Your task to perform on an android device: delete browsing data in the chrome app Image 0: 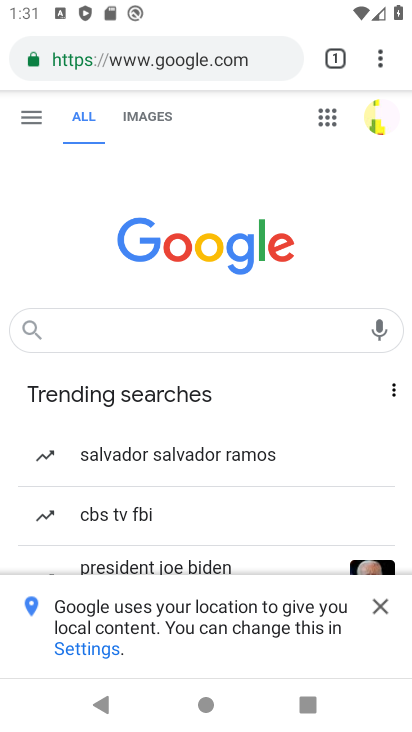
Step 0: click (383, 62)
Your task to perform on an android device: delete browsing data in the chrome app Image 1: 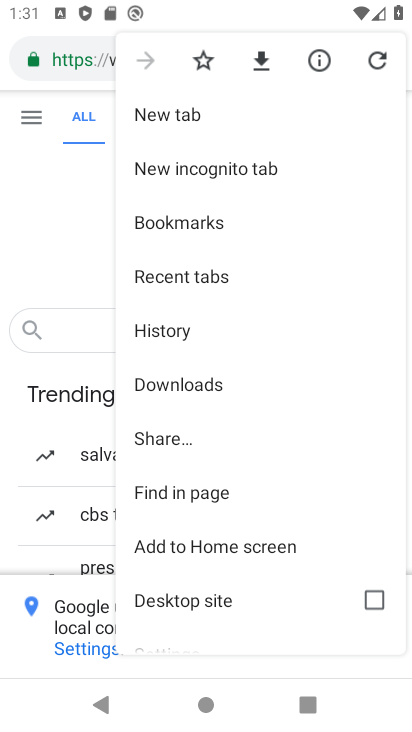
Step 1: drag from (272, 452) to (256, 106)
Your task to perform on an android device: delete browsing data in the chrome app Image 2: 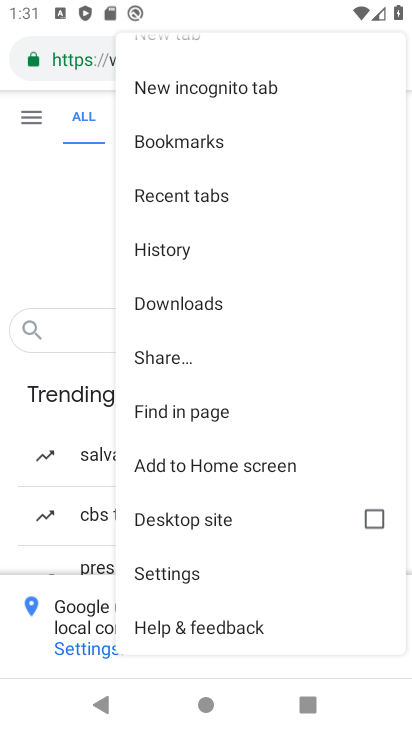
Step 2: click (257, 586)
Your task to perform on an android device: delete browsing data in the chrome app Image 3: 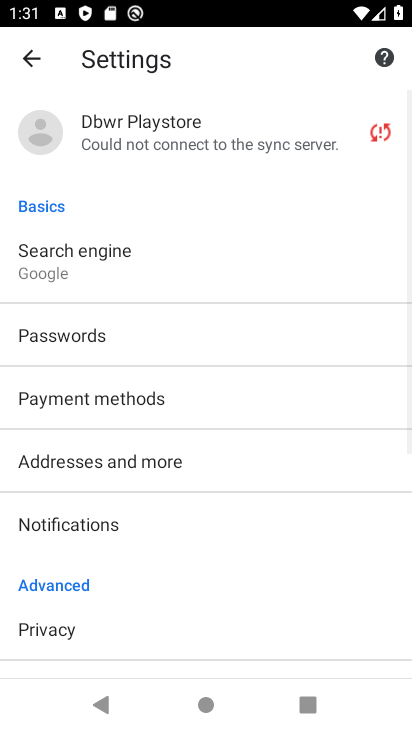
Step 3: drag from (257, 586) to (152, 200)
Your task to perform on an android device: delete browsing data in the chrome app Image 4: 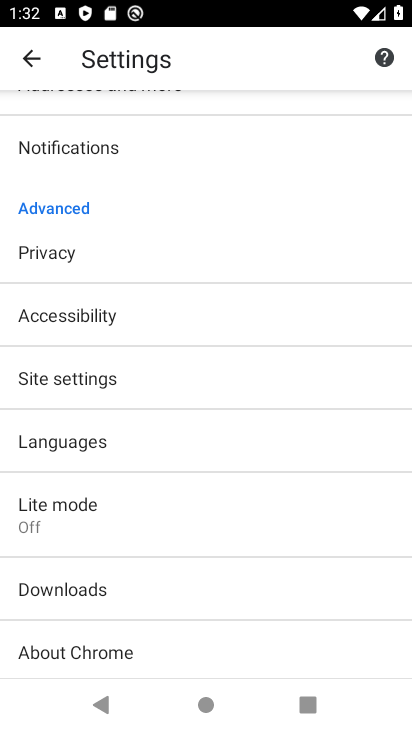
Step 4: drag from (138, 375) to (137, 489)
Your task to perform on an android device: delete browsing data in the chrome app Image 5: 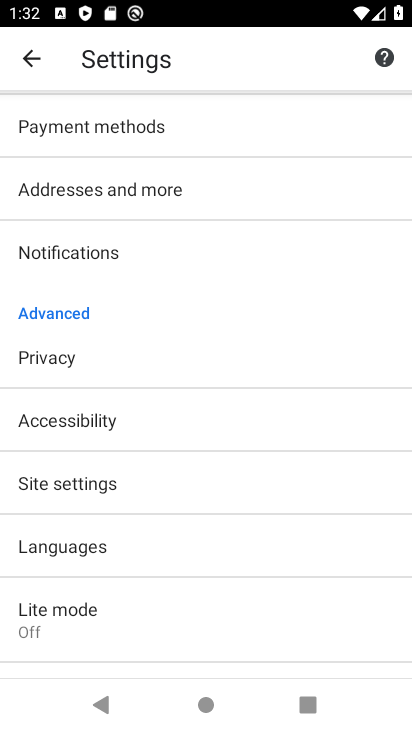
Step 5: press home button
Your task to perform on an android device: delete browsing data in the chrome app Image 6: 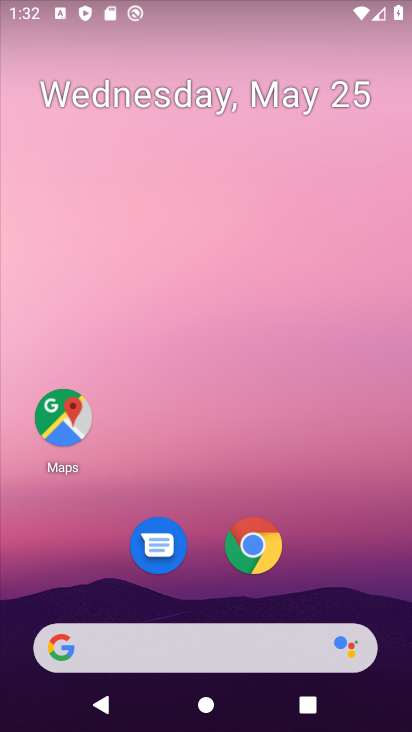
Step 6: click (278, 557)
Your task to perform on an android device: delete browsing data in the chrome app Image 7: 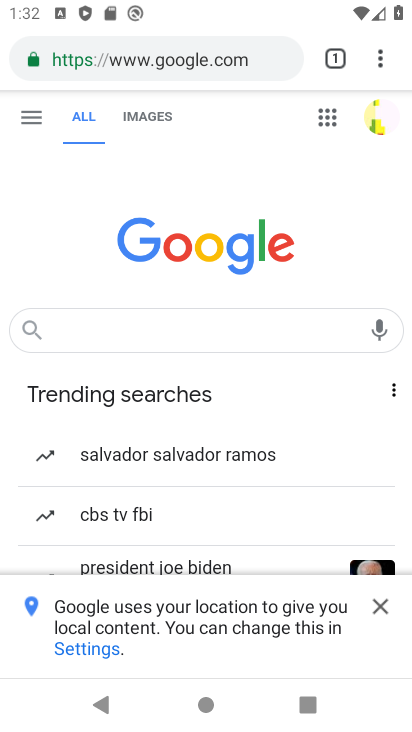
Step 7: click (379, 57)
Your task to perform on an android device: delete browsing data in the chrome app Image 8: 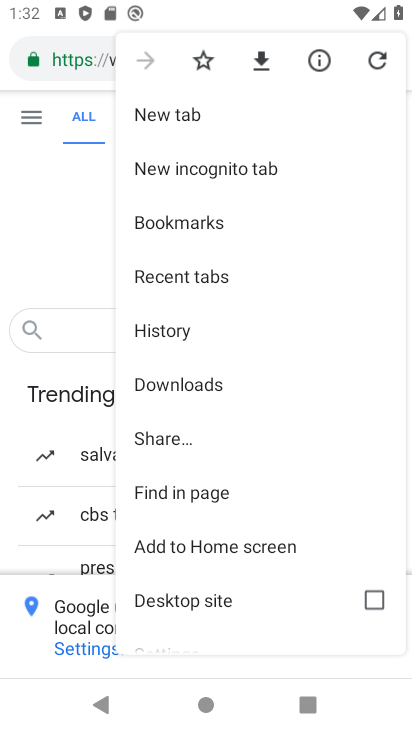
Step 8: drag from (213, 548) to (212, 353)
Your task to perform on an android device: delete browsing data in the chrome app Image 9: 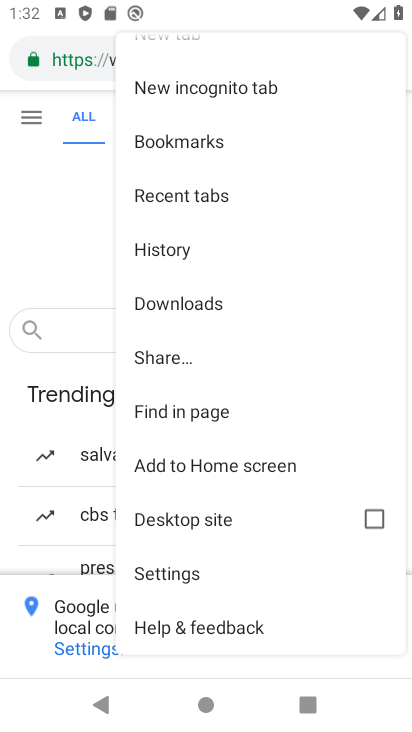
Step 9: click (248, 561)
Your task to perform on an android device: delete browsing data in the chrome app Image 10: 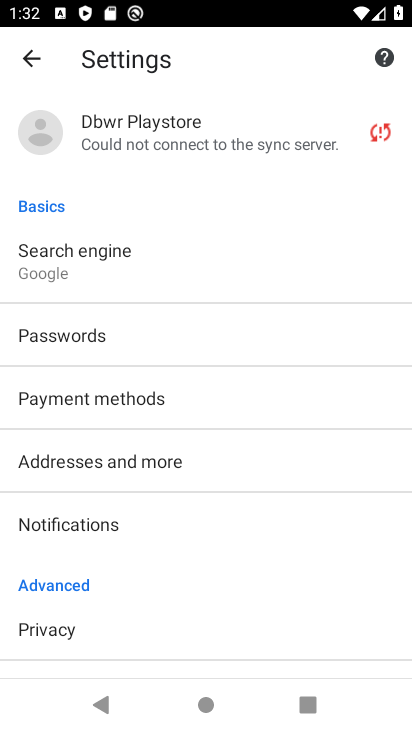
Step 10: task complete